Your task to perform on an android device: Install the Lyft app Image 0: 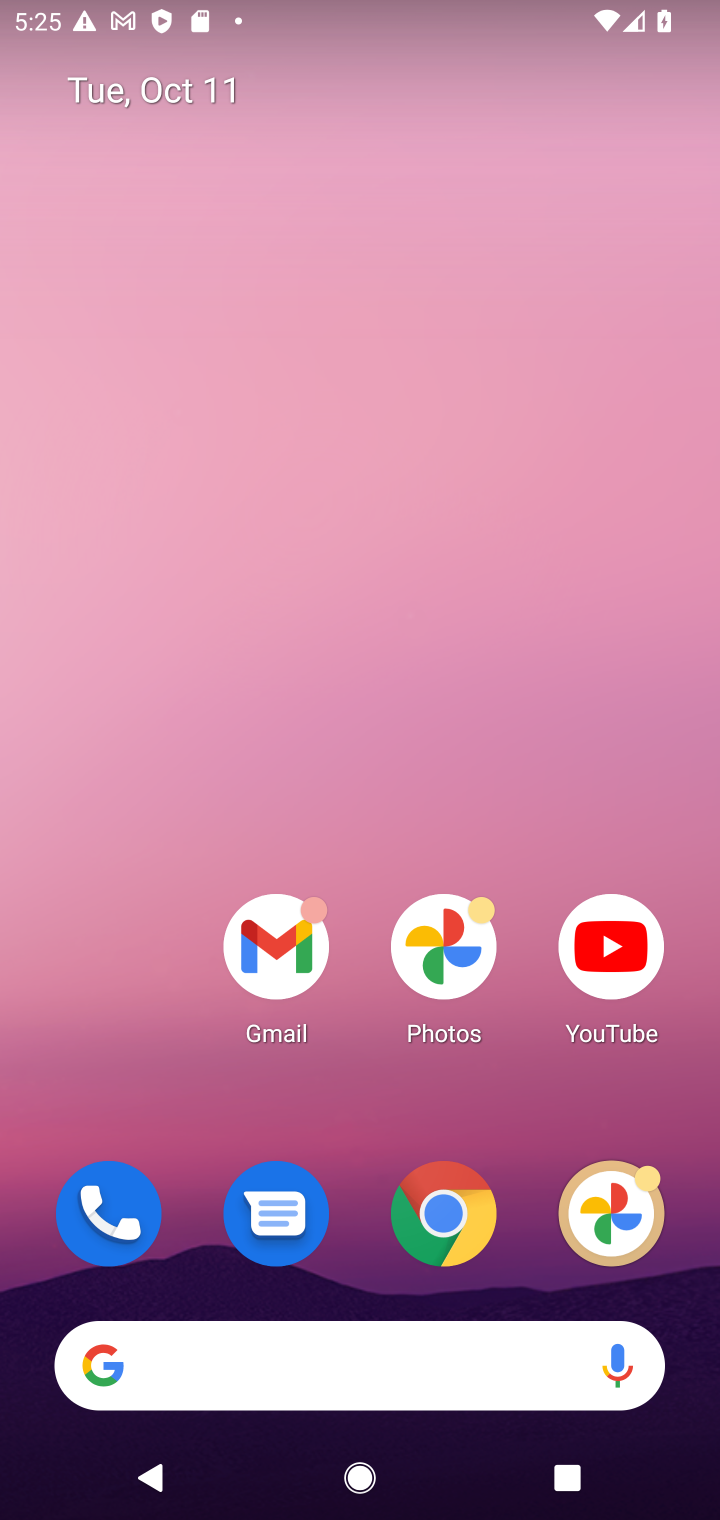
Step 0: drag from (297, 962) to (297, 549)
Your task to perform on an android device: Install the Lyft app Image 1: 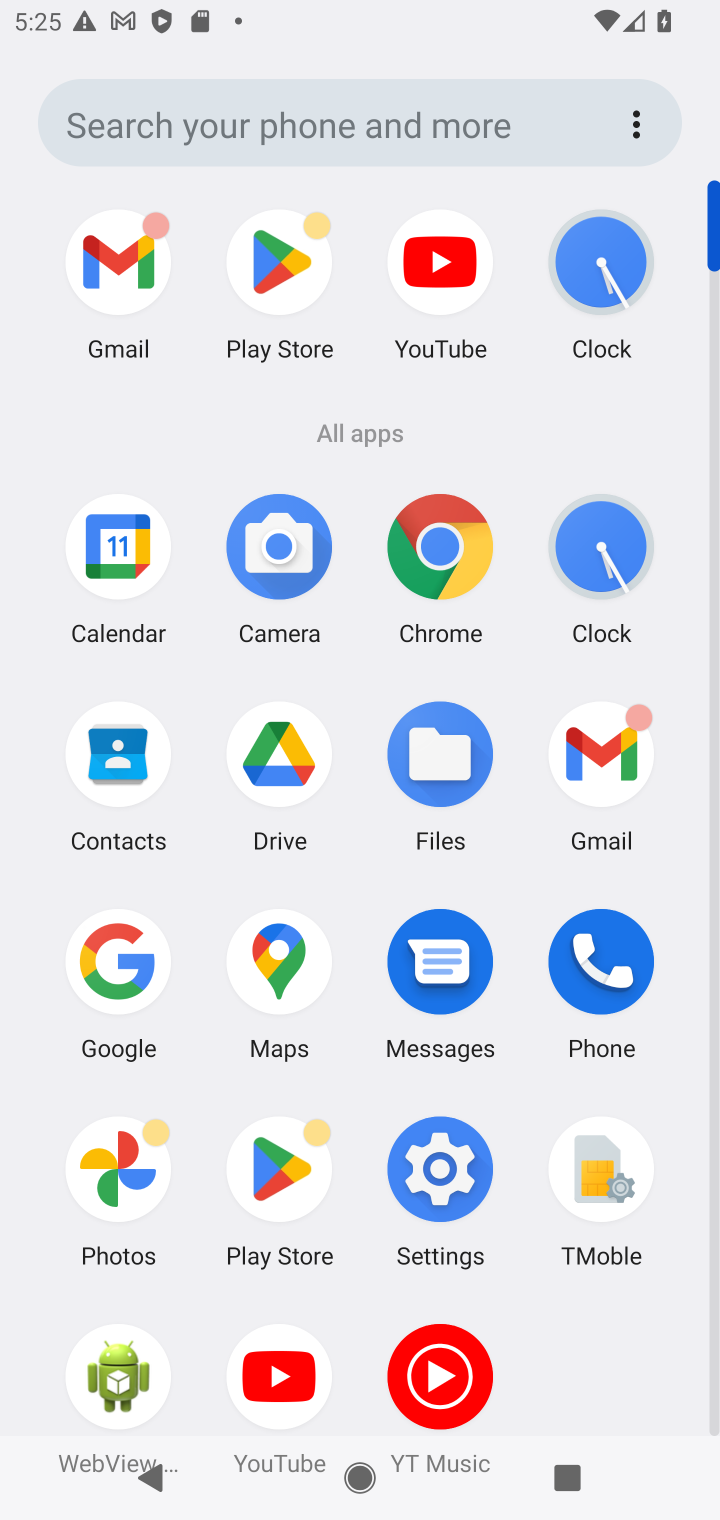
Step 1: click (266, 1159)
Your task to perform on an android device: Install the Lyft app Image 2: 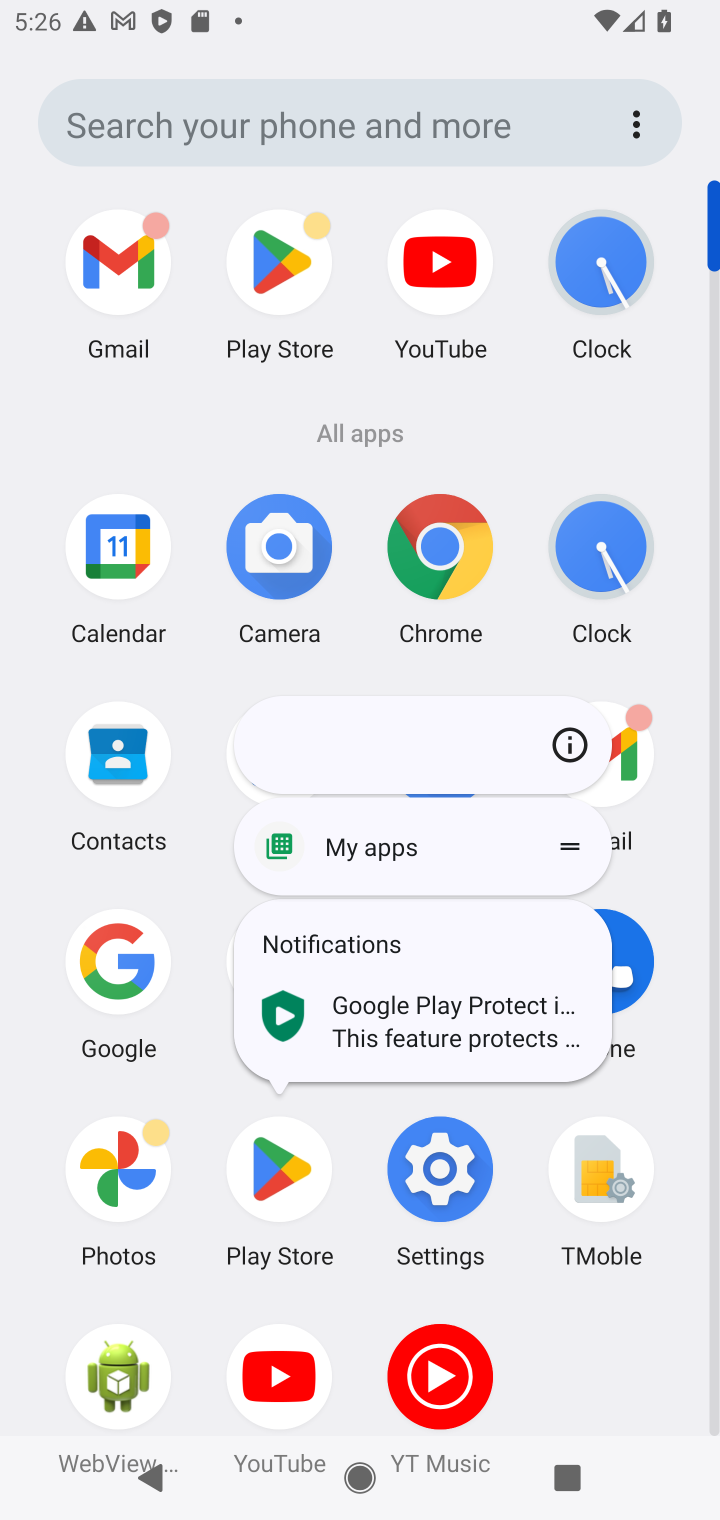
Step 2: click (277, 278)
Your task to perform on an android device: Install the Lyft app Image 3: 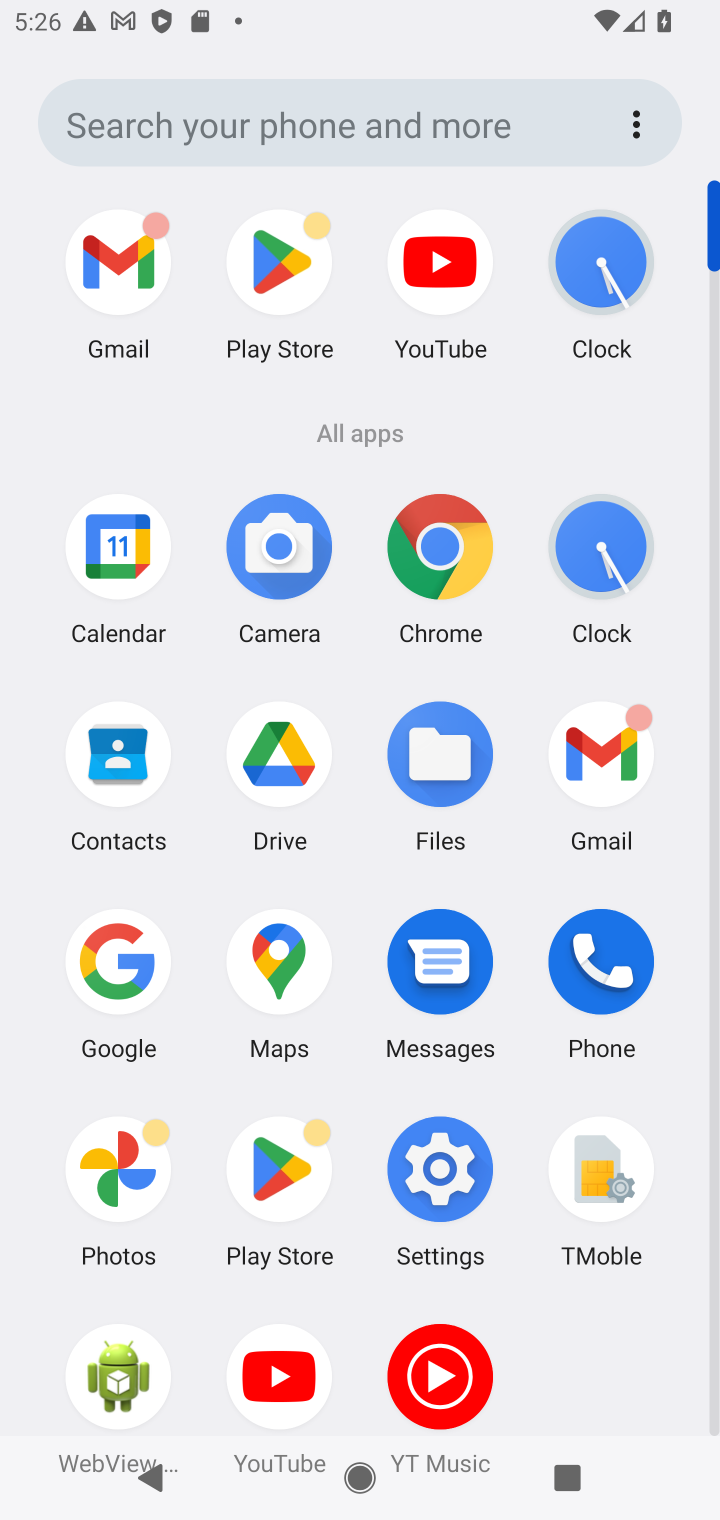
Step 3: click (275, 261)
Your task to perform on an android device: Install the Lyft app Image 4: 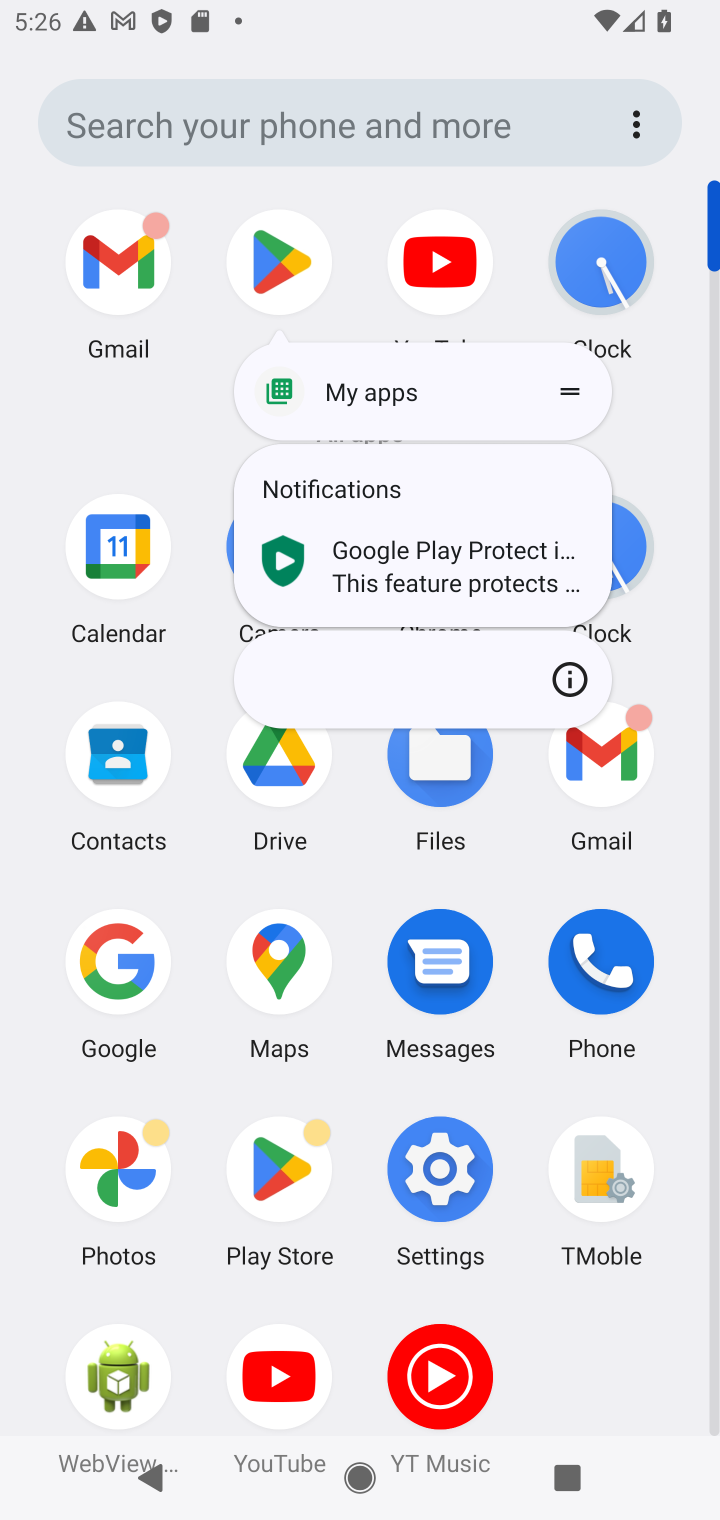
Step 4: click (275, 278)
Your task to perform on an android device: Install the Lyft app Image 5: 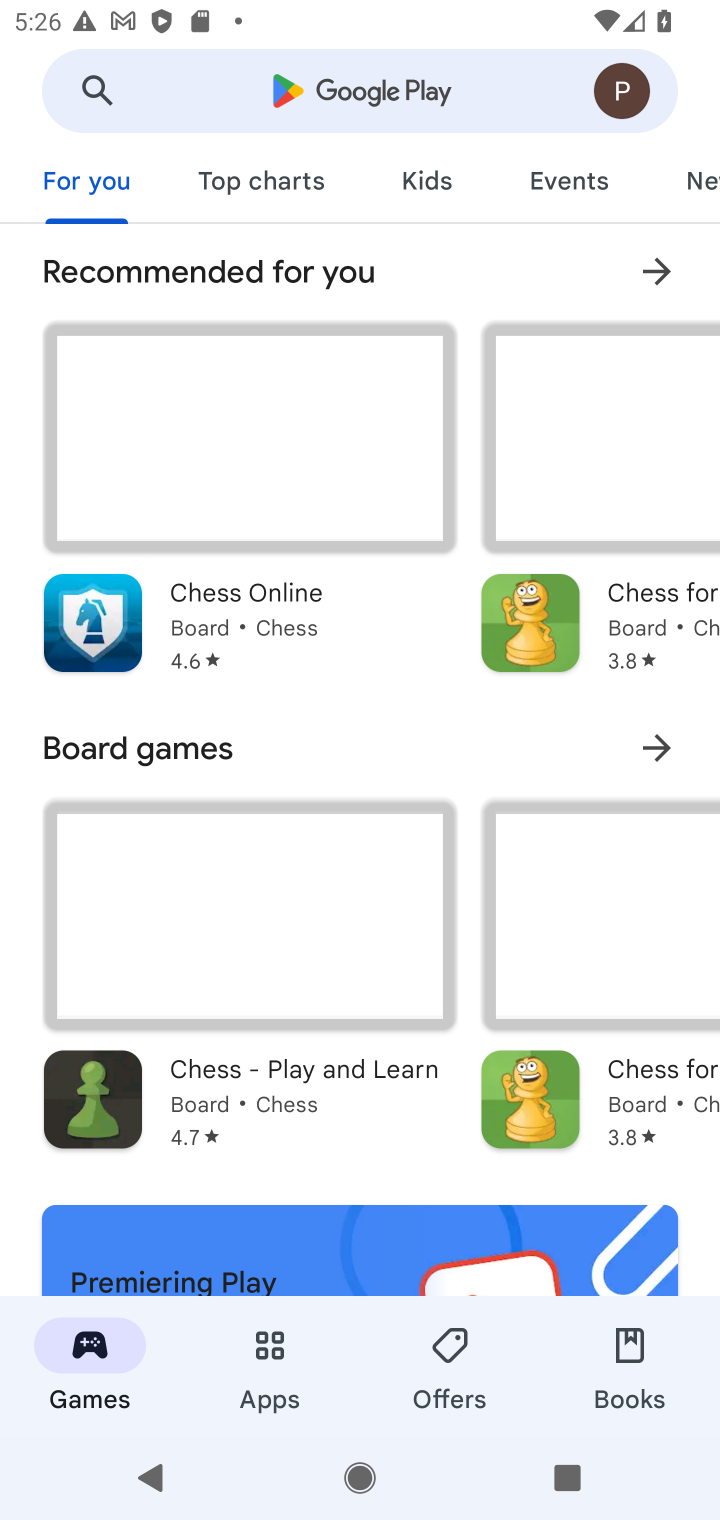
Step 5: click (336, 97)
Your task to perform on an android device: Install the Lyft app Image 6: 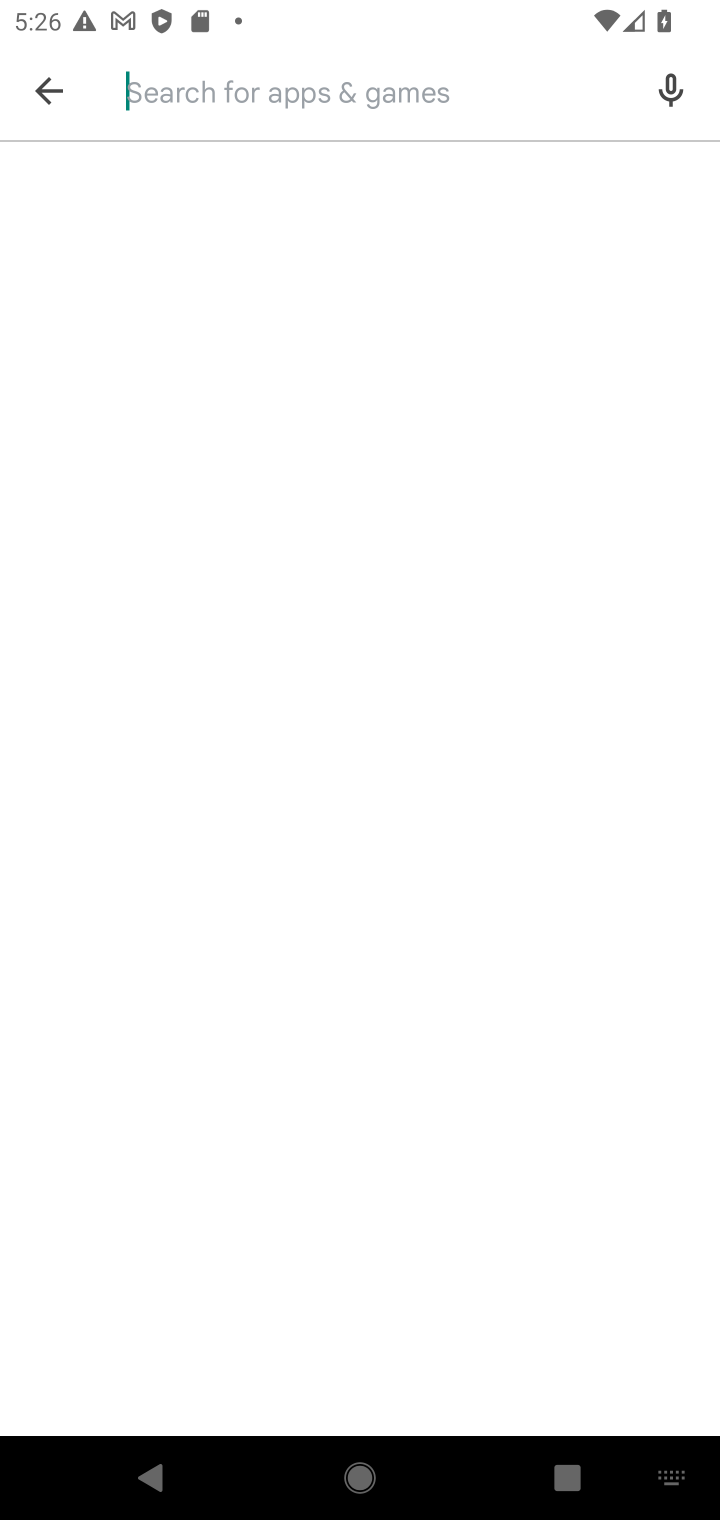
Step 6: type "Lyft"
Your task to perform on an android device: Install the Lyft app Image 7: 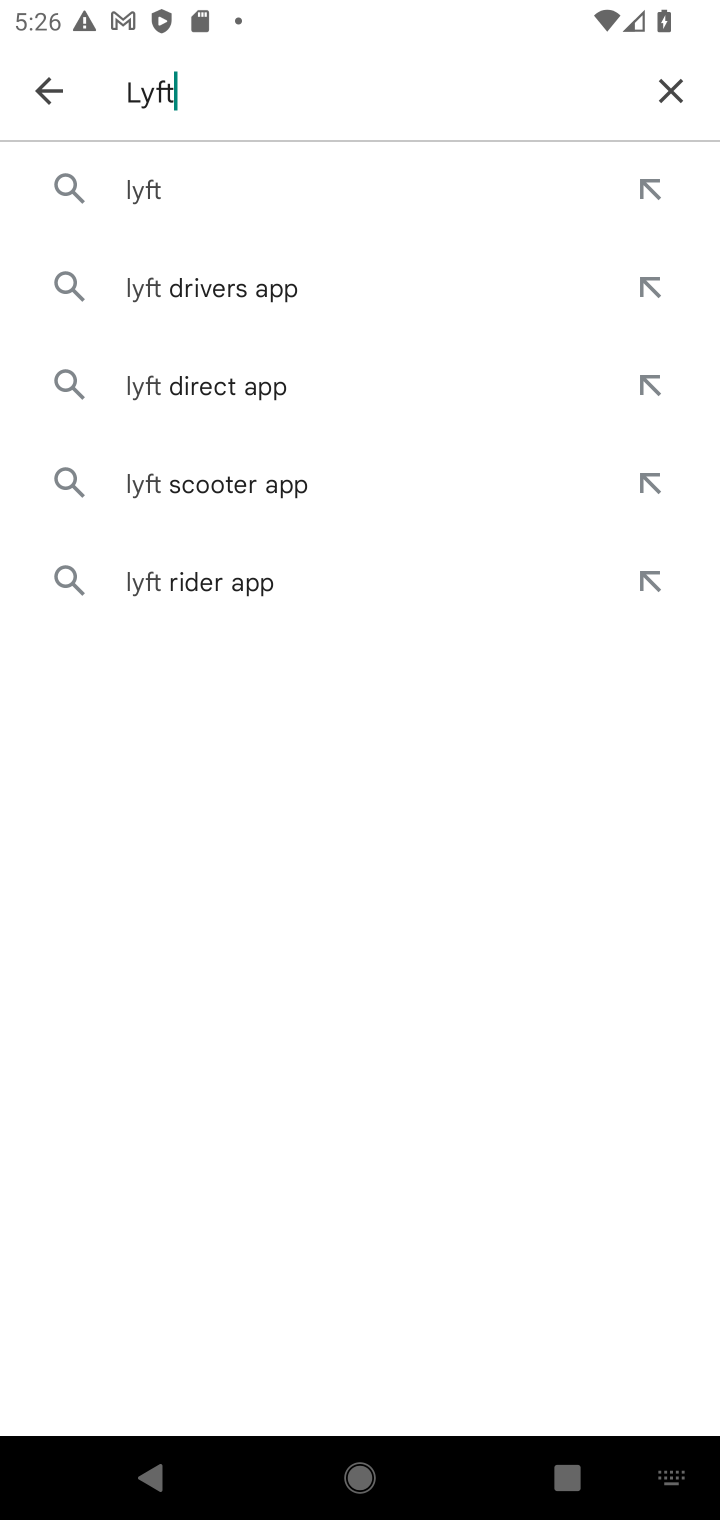
Step 7: click (268, 205)
Your task to perform on an android device: Install the Lyft app Image 8: 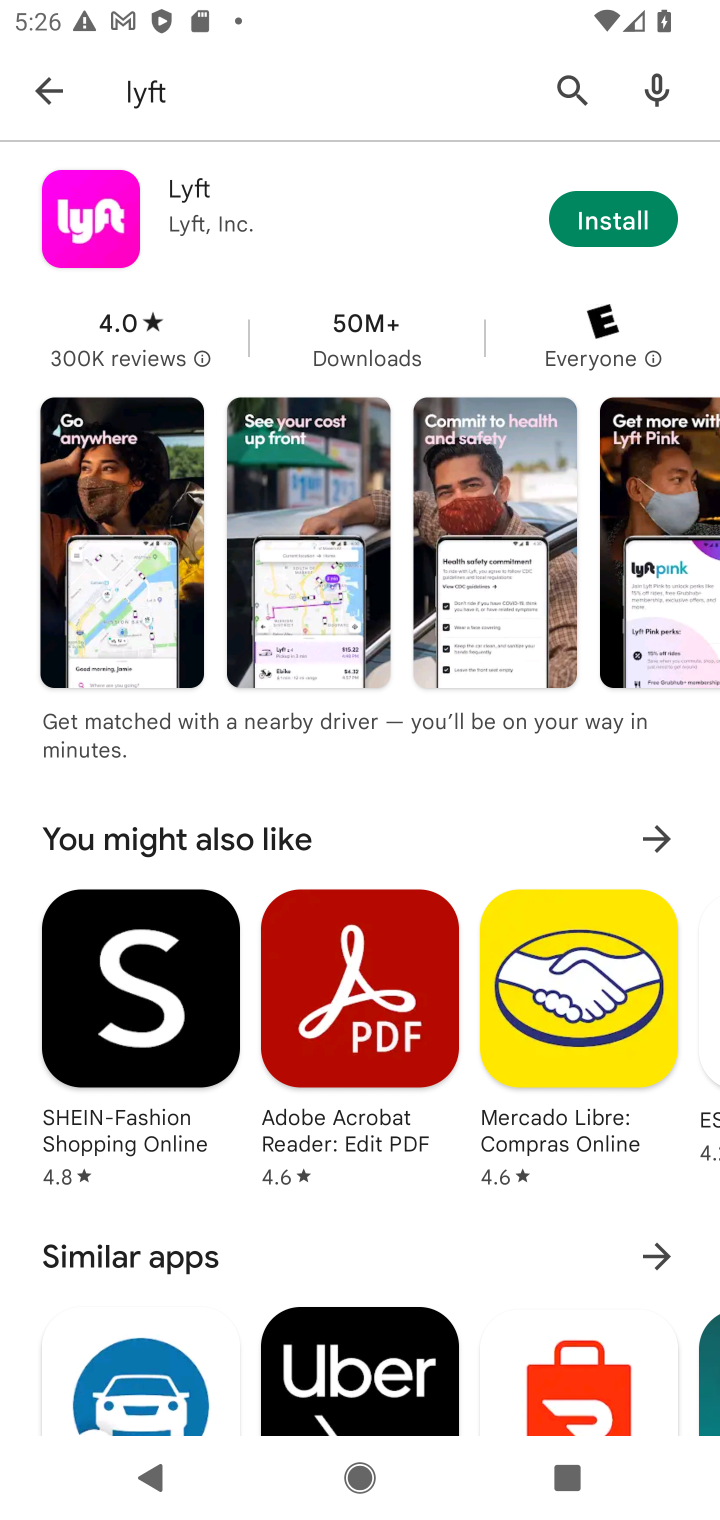
Step 8: click (626, 200)
Your task to perform on an android device: Install the Lyft app Image 9: 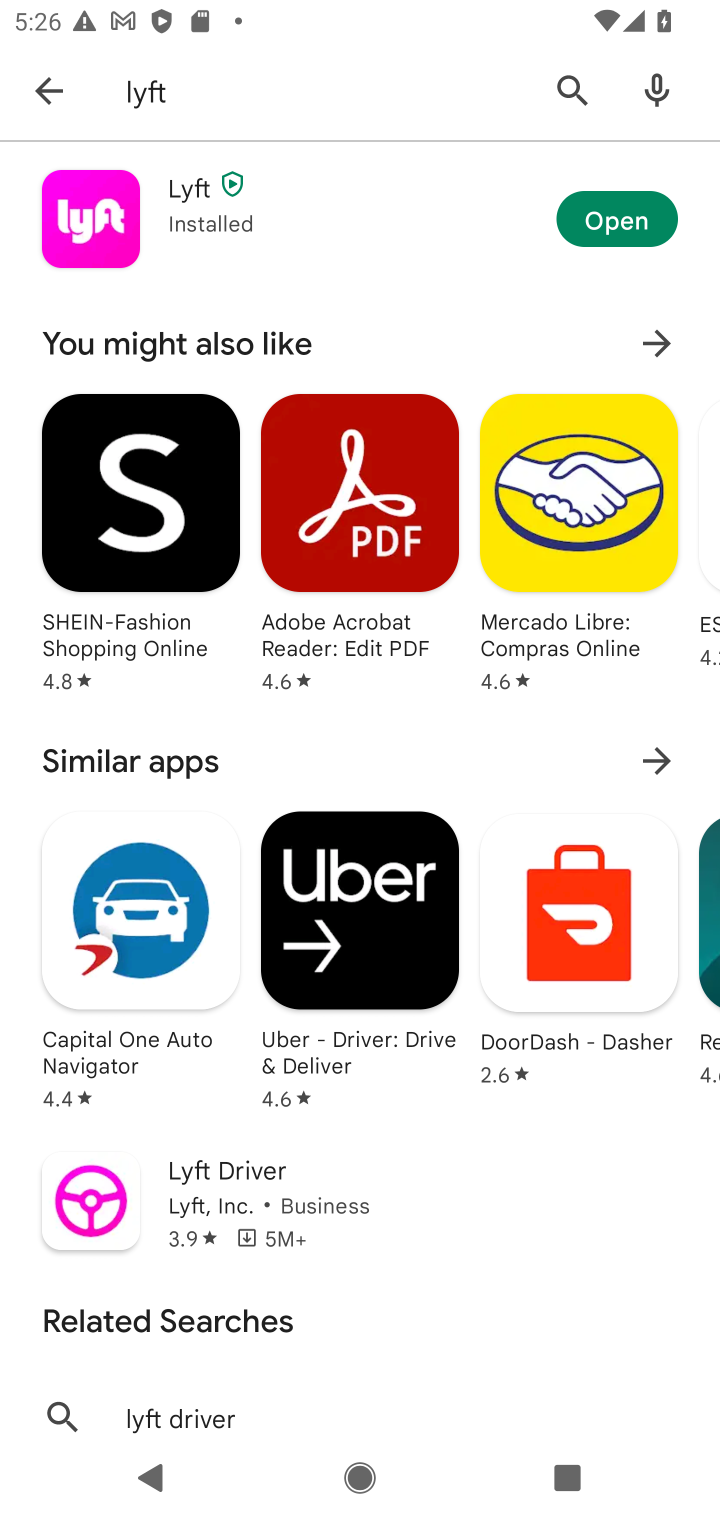
Step 9: click (619, 221)
Your task to perform on an android device: Install the Lyft app Image 10: 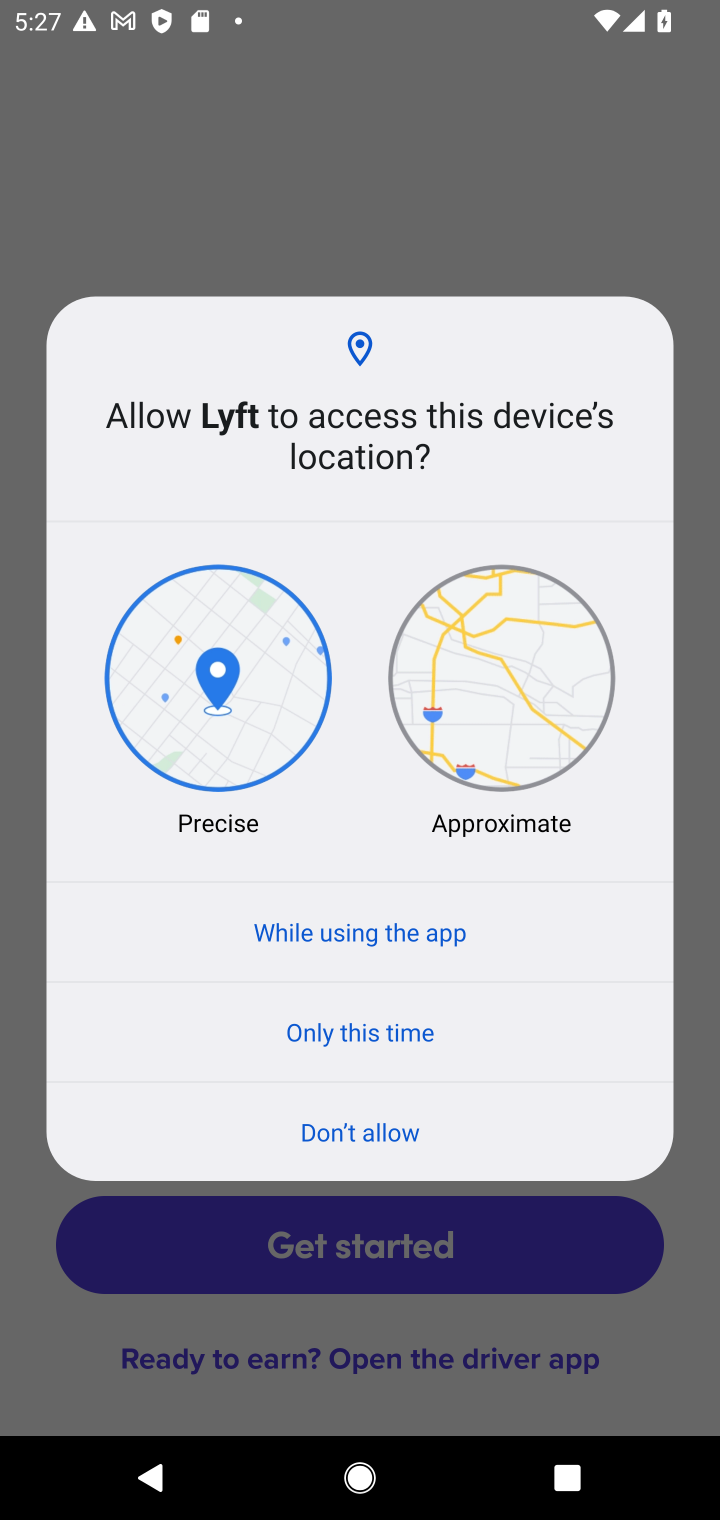
Step 10: task complete